Your task to perform on an android device: create a new album in the google photos Image 0: 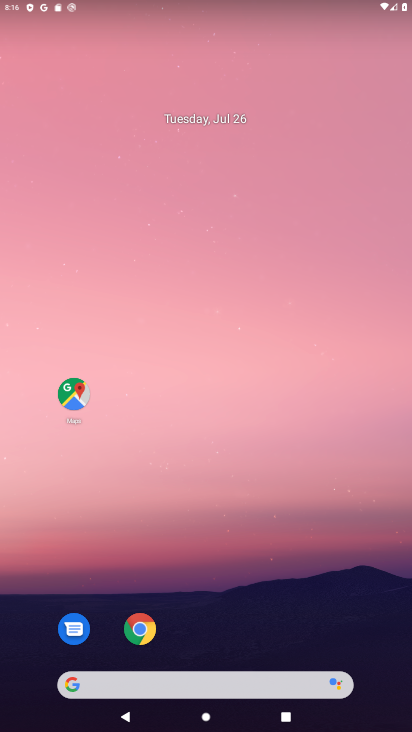
Step 0: press home button
Your task to perform on an android device: create a new album in the google photos Image 1: 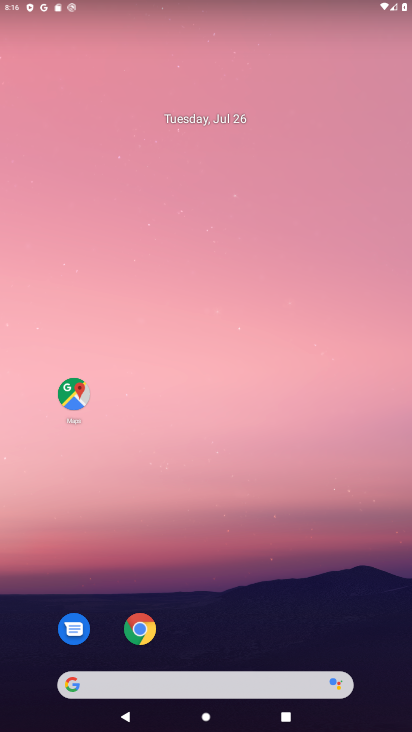
Step 1: click (158, 200)
Your task to perform on an android device: create a new album in the google photos Image 2: 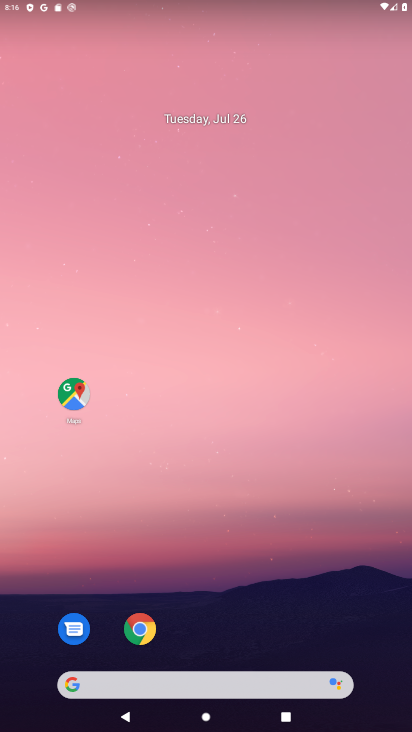
Step 2: drag from (232, 648) to (260, 1)
Your task to perform on an android device: create a new album in the google photos Image 3: 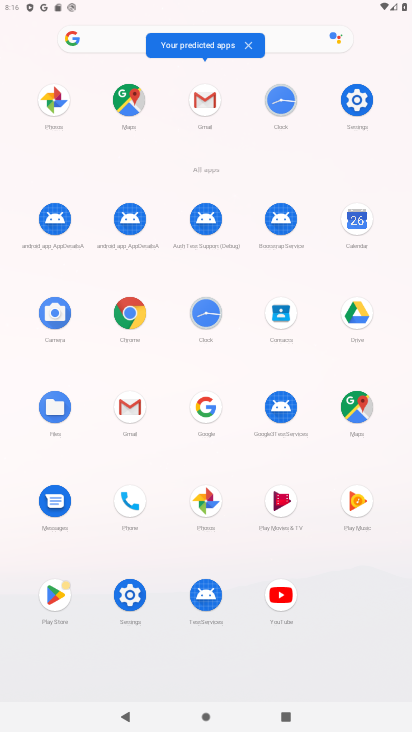
Step 3: click (212, 510)
Your task to perform on an android device: create a new album in the google photos Image 4: 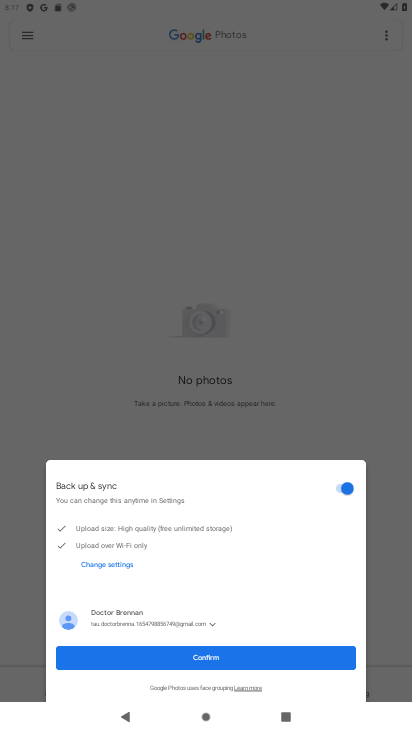
Step 4: click (138, 670)
Your task to perform on an android device: create a new album in the google photos Image 5: 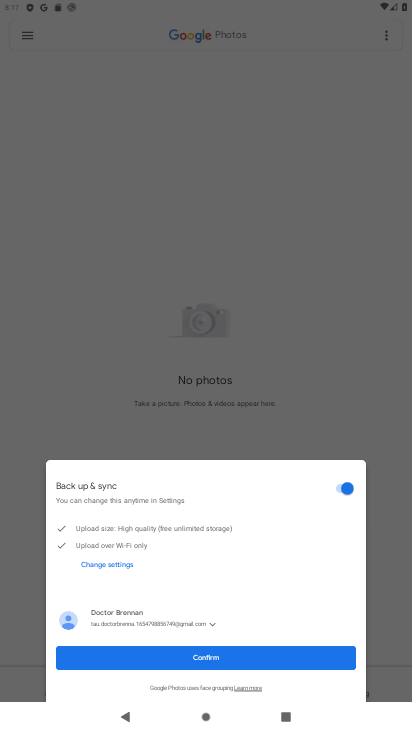
Step 5: click (138, 670)
Your task to perform on an android device: create a new album in the google photos Image 6: 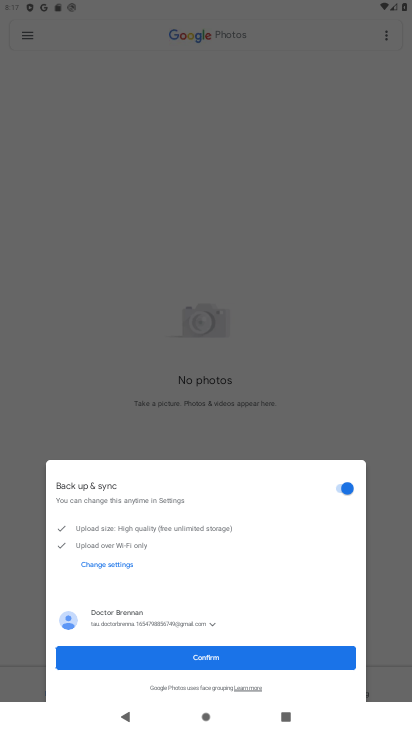
Step 6: click (139, 659)
Your task to perform on an android device: create a new album in the google photos Image 7: 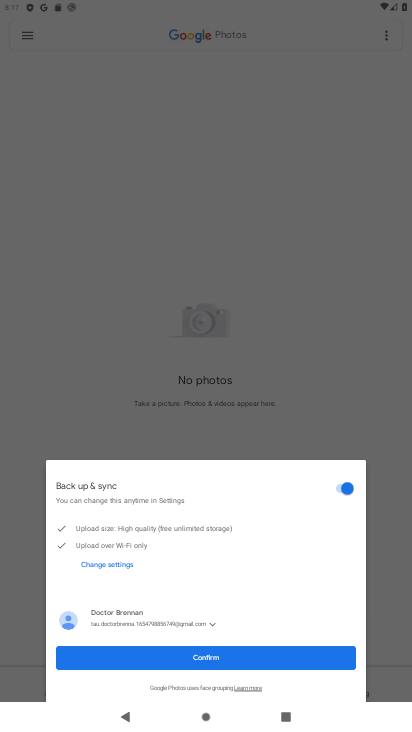
Step 7: click (138, 670)
Your task to perform on an android device: create a new album in the google photos Image 8: 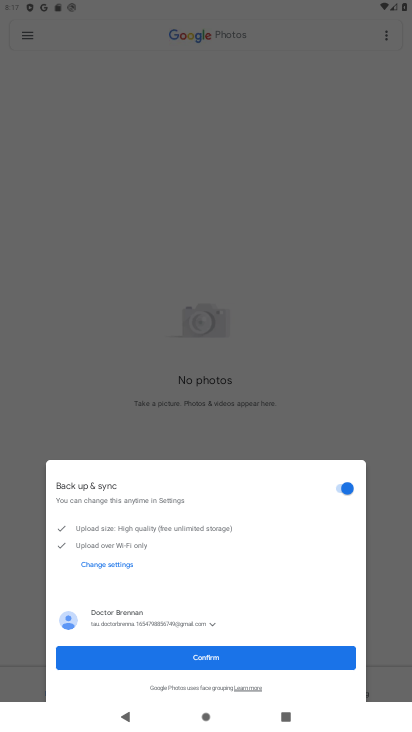
Step 8: click (138, 670)
Your task to perform on an android device: create a new album in the google photos Image 9: 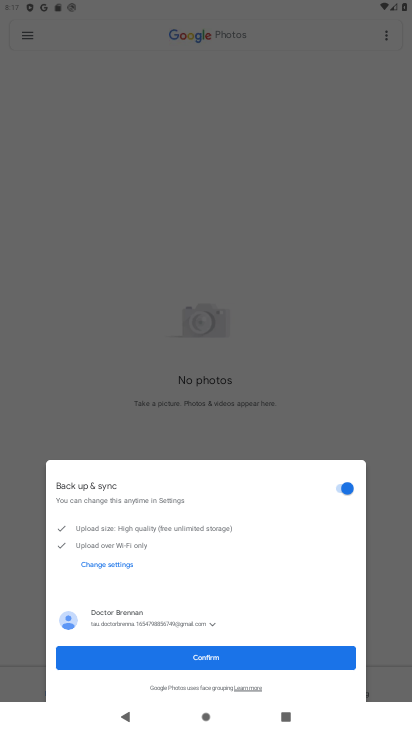
Step 9: click (138, 670)
Your task to perform on an android device: create a new album in the google photos Image 10: 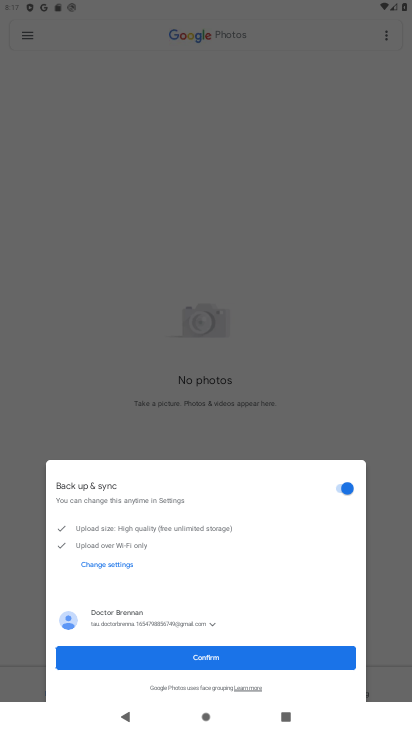
Step 10: click (181, 656)
Your task to perform on an android device: create a new album in the google photos Image 11: 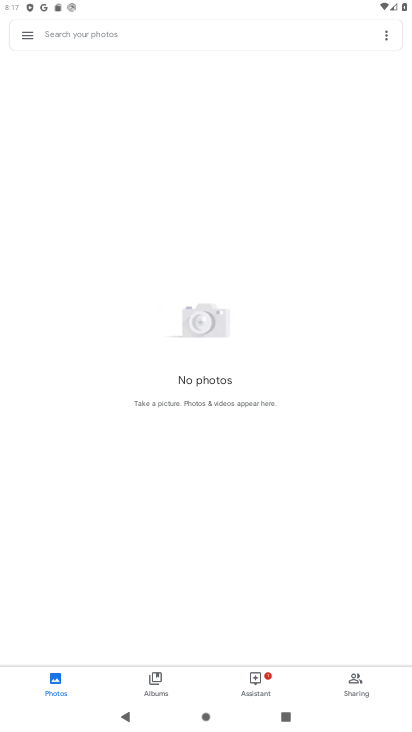
Step 11: task complete